Your task to perform on an android device: change alarm snooze length Image 0: 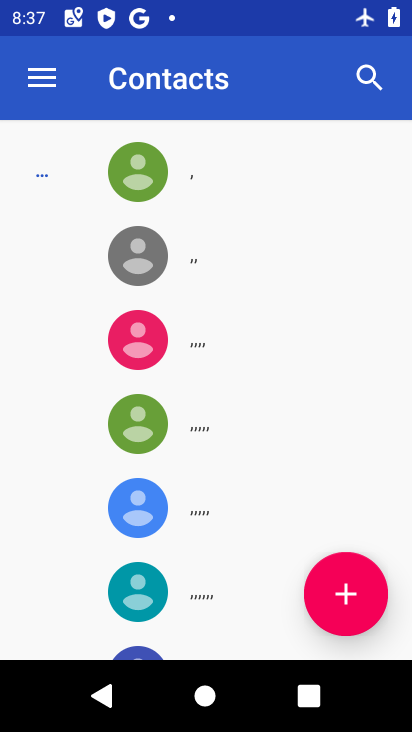
Step 0: press home button
Your task to perform on an android device: change alarm snooze length Image 1: 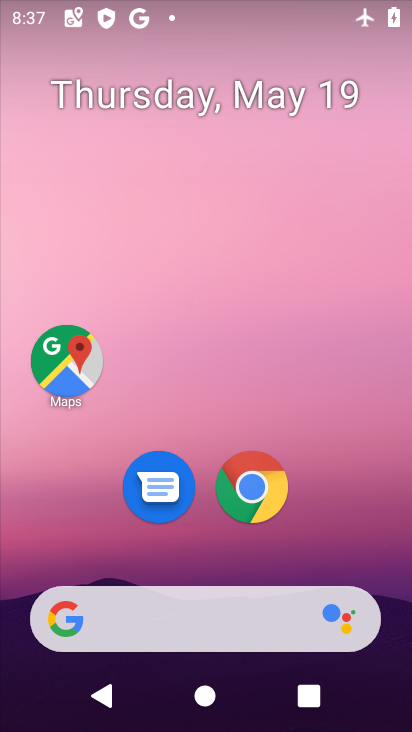
Step 1: drag from (223, 567) to (242, 3)
Your task to perform on an android device: change alarm snooze length Image 2: 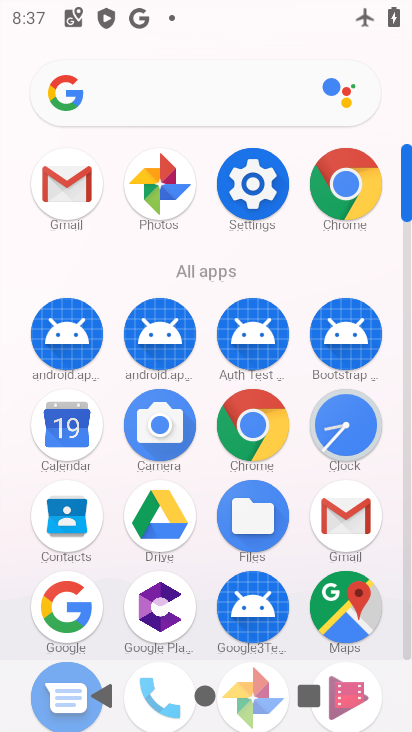
Step 2: click (346, 433)
Your task to perform on an android device: change alarm snooze length Image 3: 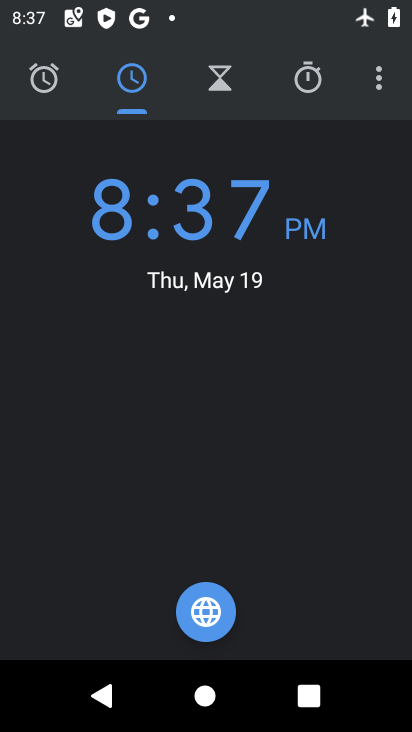
Step 3: click (374, 90)
Your task to perform on an android device: change alarm snooze length Image 4: 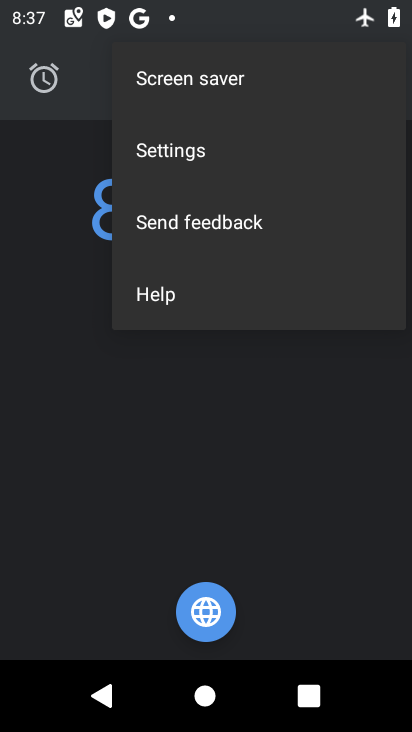
Step 4: click (157, 146)
Your task to perform on an android device: change alarm snooze length Image 5: 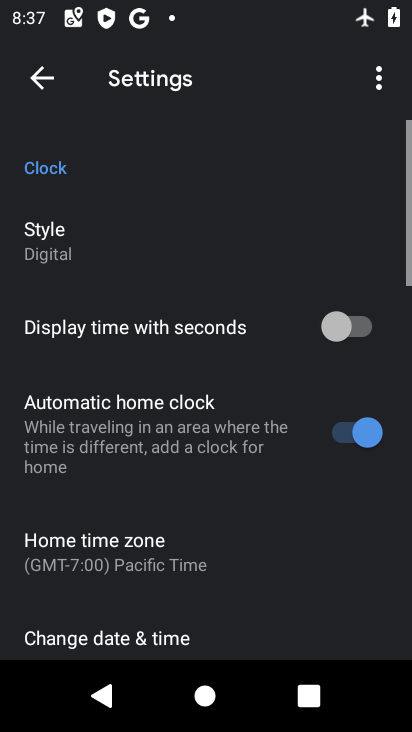
Step 5: drag from (287, 621) to (293, 333)
Your task to perform on an android device: change alarm snooze length Image 6: 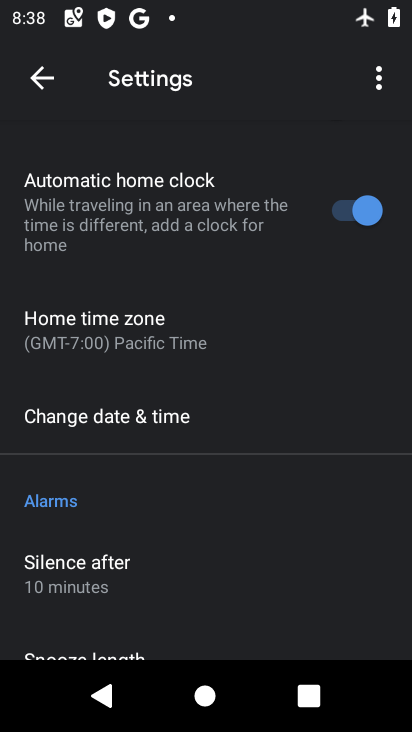
Step 6: drag from (93, 570) to (78, 309)
Your task to perform on an android device: change alarm snooze length Image 7: 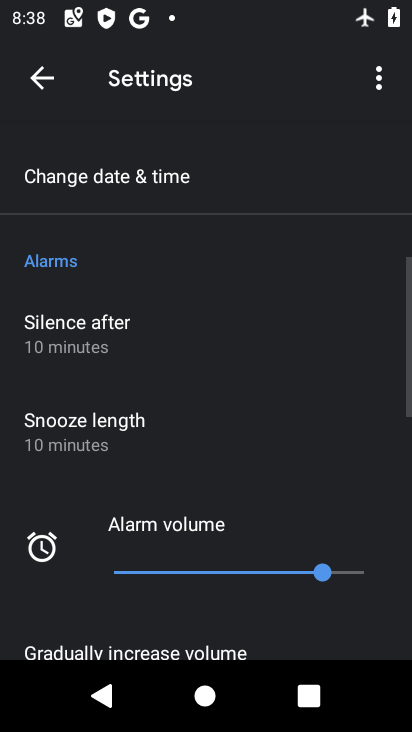
Step 7: click (101, 428)
Your task to perform on an android device: change alarm snooze length Image 8: 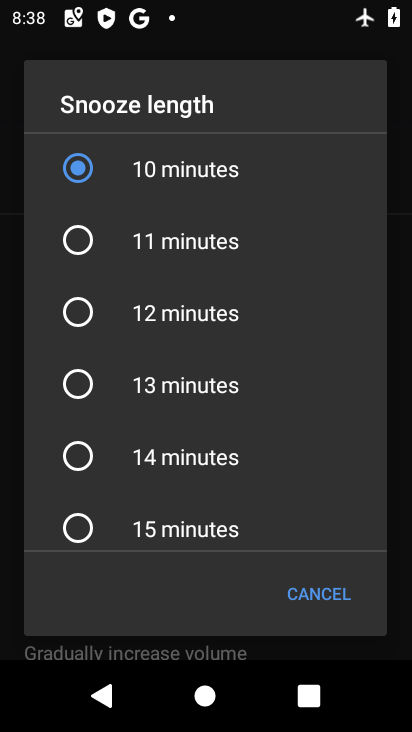
Step 8: click (201, 223)
Your task to perform on an android device: change alarm snooze length Image 9: 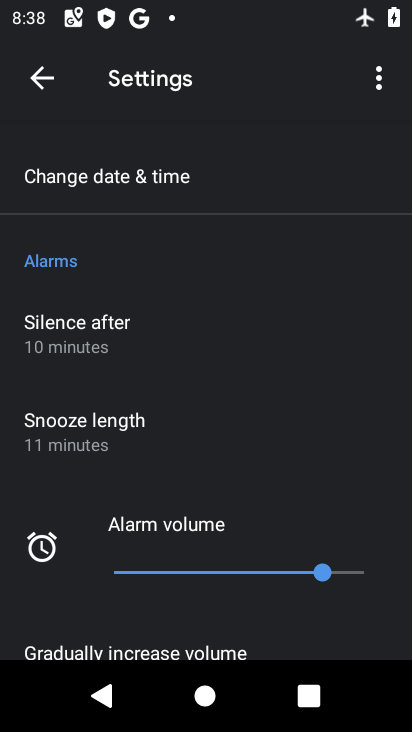
Step 9: task complete